Your task to perform on an android device: Open Chrome and go to settings Image 0: 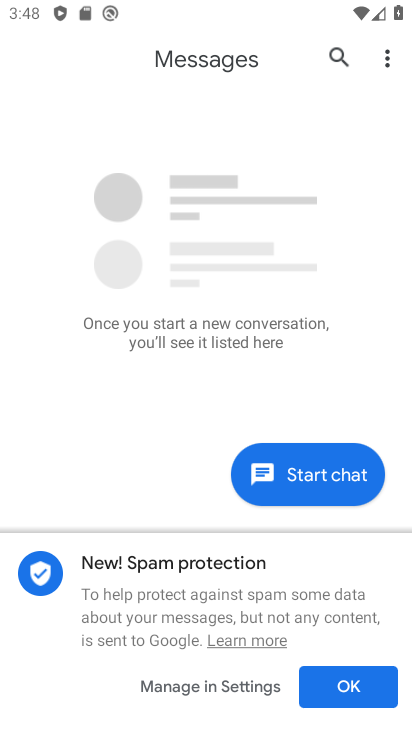
Step 0: press home button
Your task to perform on an android device: Open Chrome and go to settings Image 1: 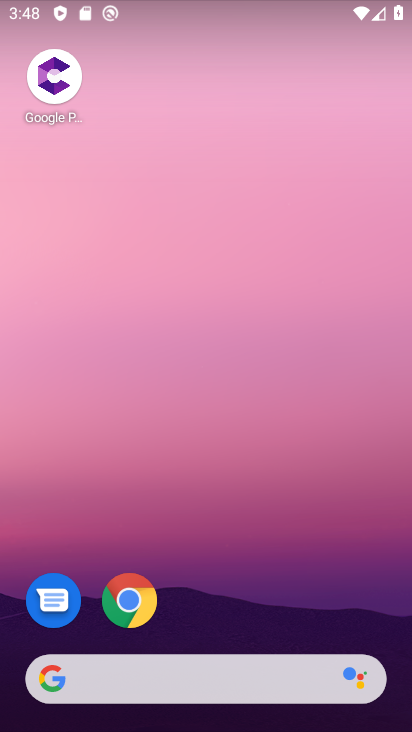
Step 1: click (137, 600)
Your task to perform on an android device: Open Chrome and go to settings Image 2: 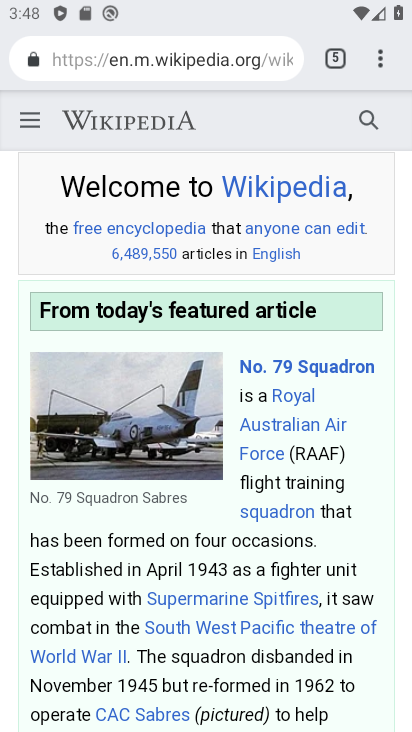
Step 2: click (375, 54)
Your task to perform on an android device: Open Chrome and go to settings Image 3: 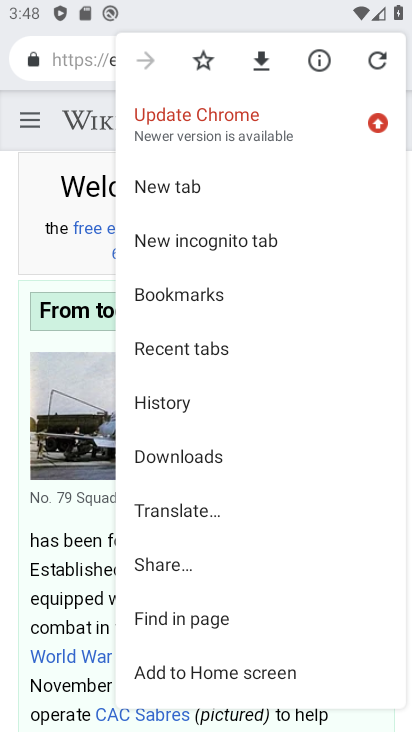
Step 3: drag from (260, 485) to (329, 178)
Your task to perform on an android device: Open Chrome and go to settings Image 4: 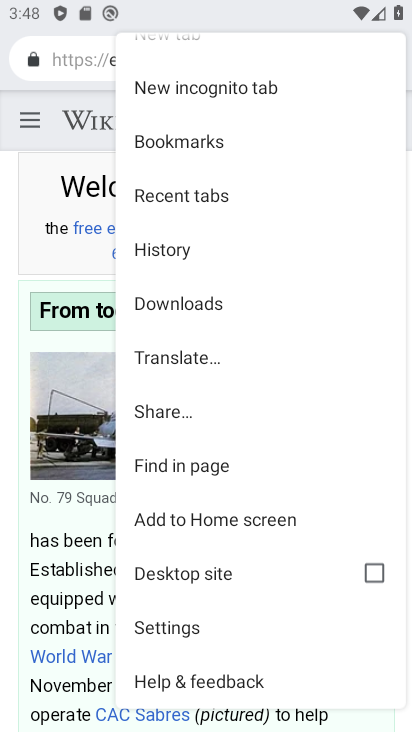
Step 4: click (193, 615)
Your task to perform on an android device: Open Chrome and go to settings Image 5: 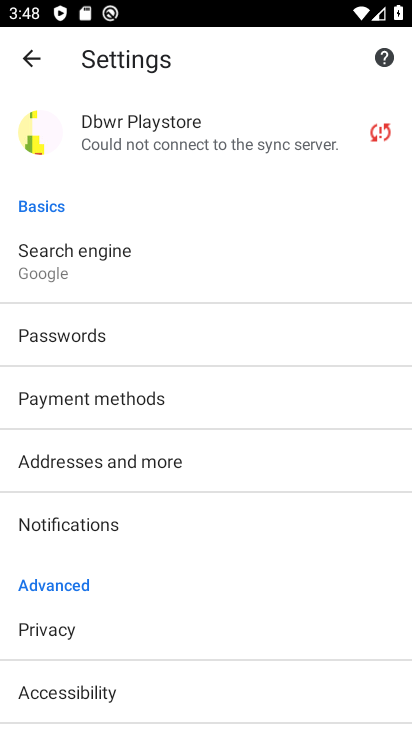
Step 5: task complete